Your task to perform on an android device: Turn on the flashlight Image 0: 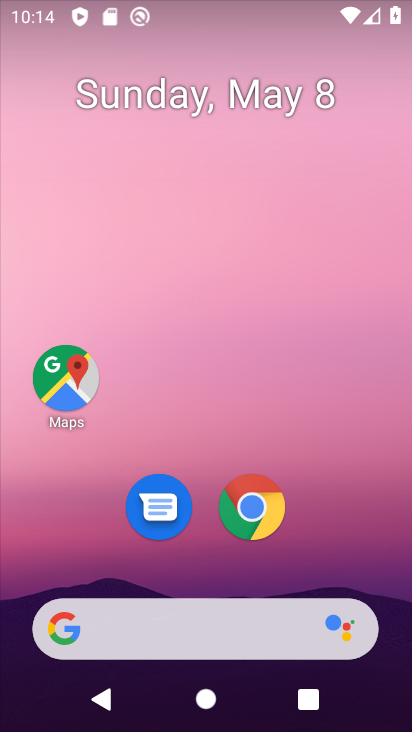
Step 0: drag from (323, 562) to (286, 39)
Your task to perform on an android device: Turn on the flashlight Image 1: 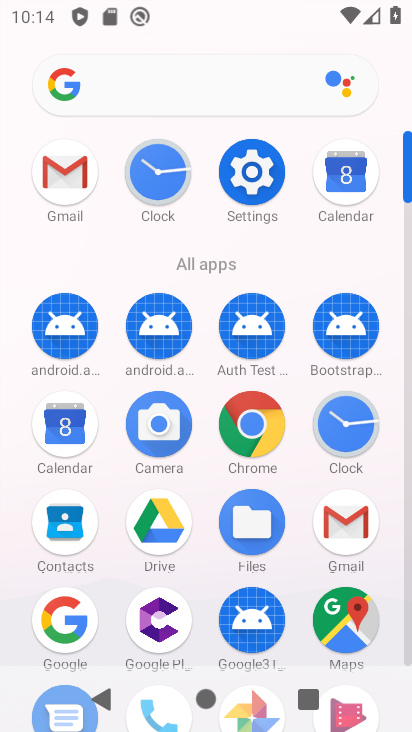
Step 1: click (234, 174)
Your task to perform on an android device: Turn on the flashlight Image 2: 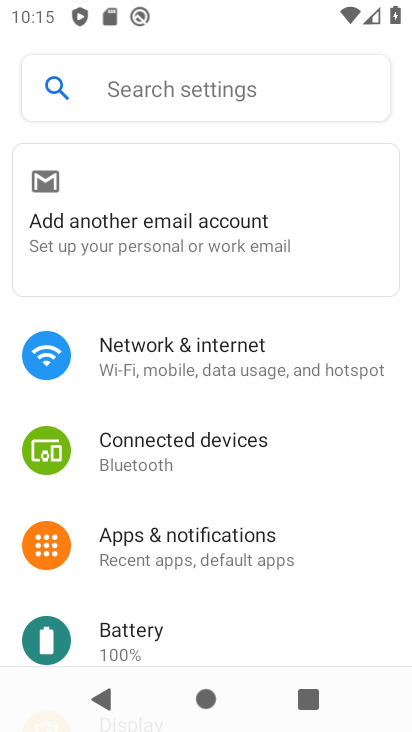
Step 2: task complete